Your task to perform on an android device: open app "Google Drive" Image 0: 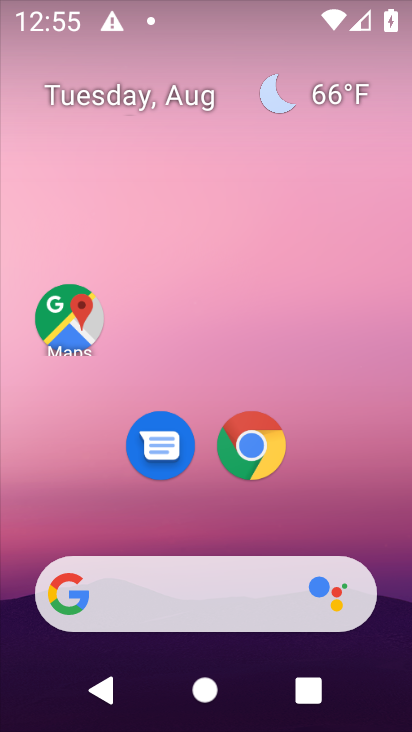
Step 0: drag from (380, 543) to (302, 236)
Your task to perform on an android device: open app "Google Drive" Image 1: 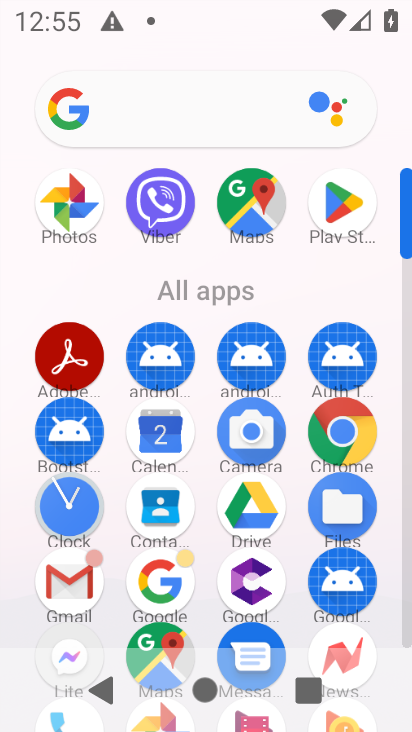
Step 1: click (341, 196)
Your task to perform on an android device: open app "Google Drive" Image 2: 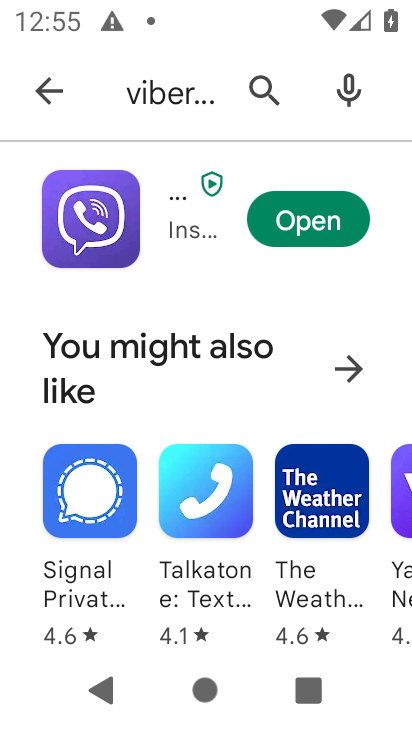
Step 2: click (280, 84)
Your task to perform on an android device: open app "Google Drive" Image 3: 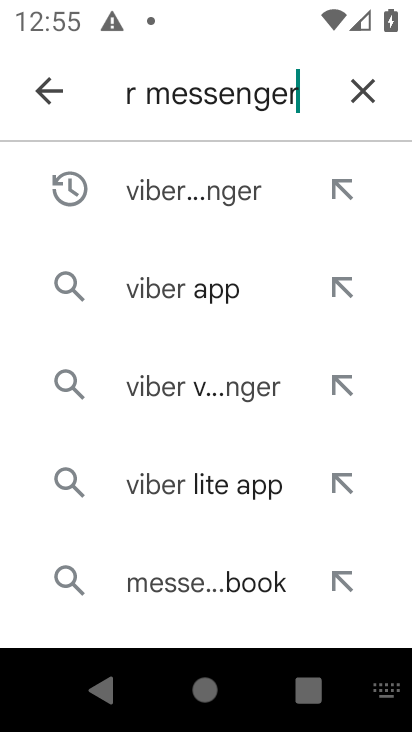
Step 3: click (360, 94)
Your task to perform on an android device: open app "Google Drive" Image 4: 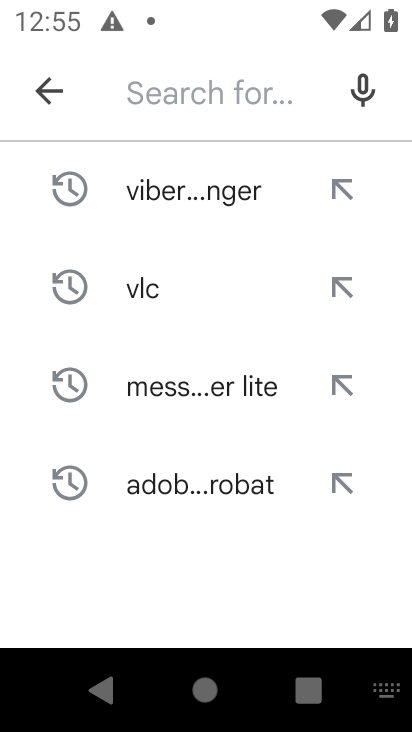
Step 4: type "google drive"
Your task to perform on an android device: open app "Google Drive" Image 5: 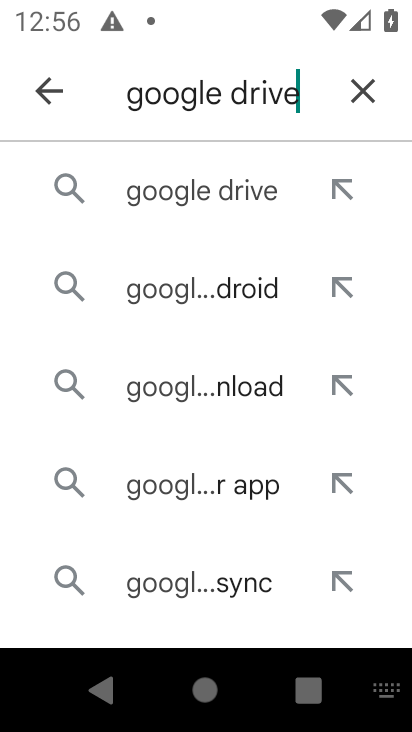
Step 5: click (246, 194)
Your task to perform on an android device: open app "Google Drive" Image 6: 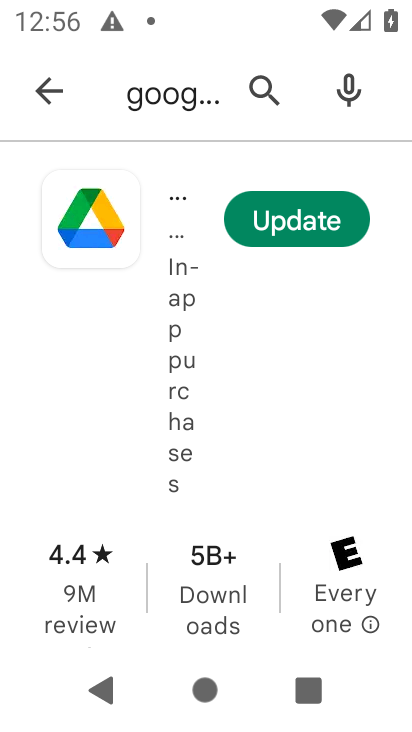
Step 6: click (156, 208)
Your task to perform on an android device: open app "Google Drive" Image 7: 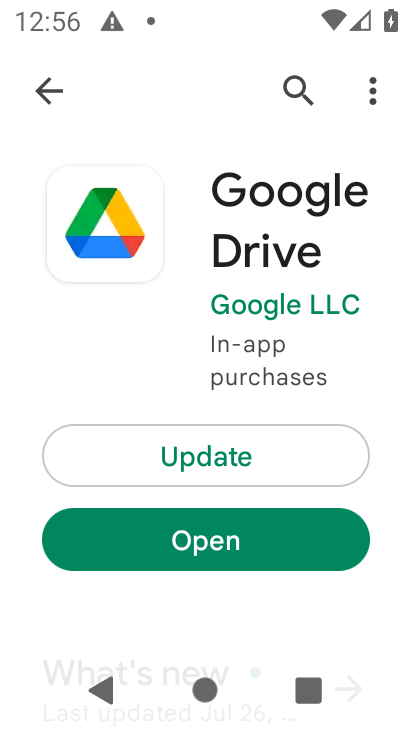
Step 7: click (301, 554)
Your task to perform on an android device: open app "Google Drive" Image 8: 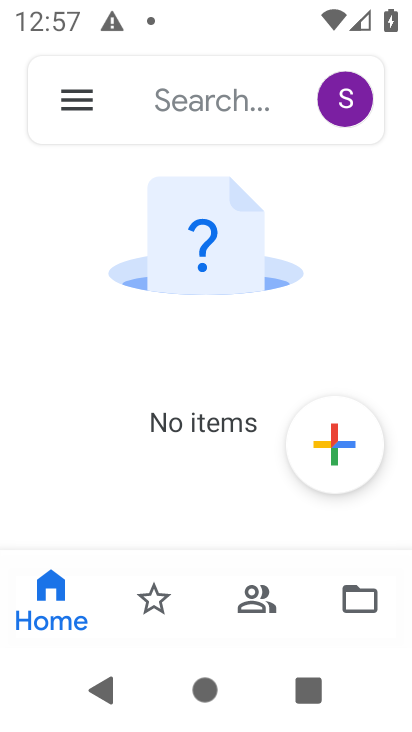
Step 8: task complete